Your task to perform on an android device: Go to accessibility settings Image 0: 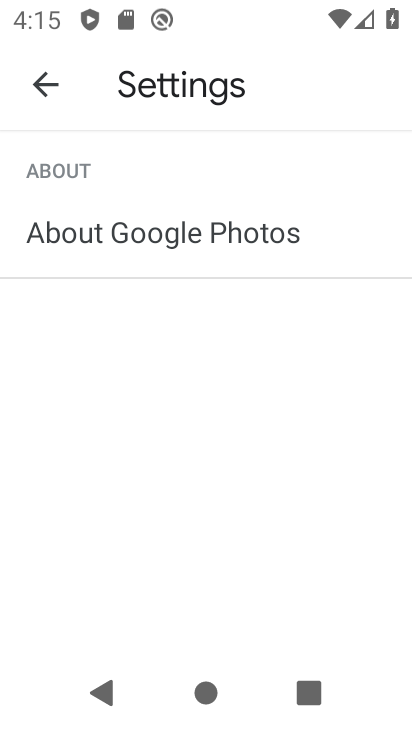
Step 0: press home button
Your task to perform on an android device: Go to accessibility settings Image 1: 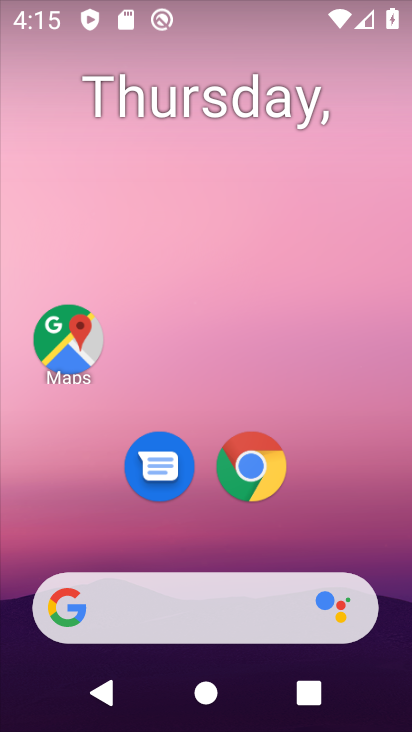
Step 1: drag from (197, 283) to (196, 81)
Your task to perform on an android device: Go to accessibility settings Image 2: 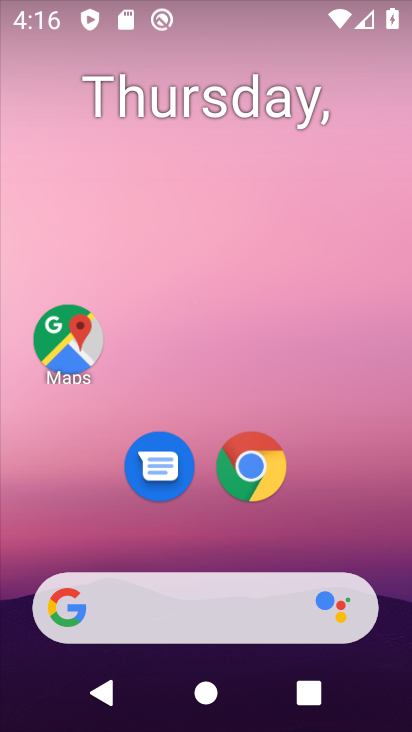
Step 2: drag from (197, 540) to (224, 41)
Your task to perform on an android device: Go to accessibility settings Image 3: 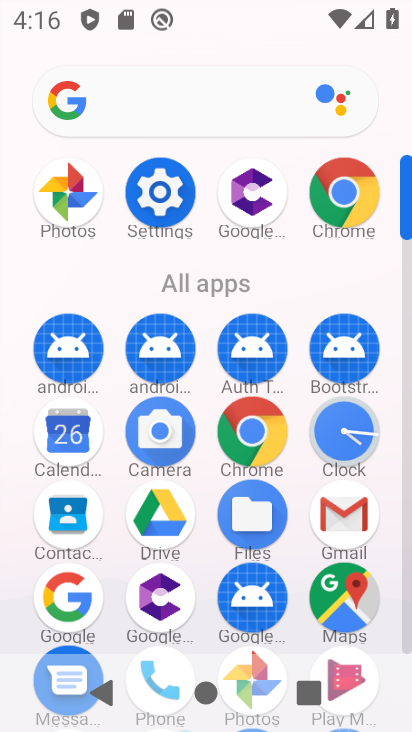
Step 3: click (158, 180)
Your task to perform on an android device: Go to accessibility settings Image 4: 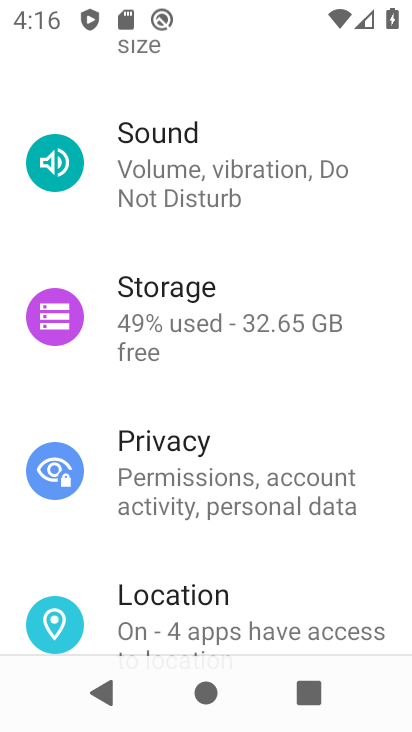
Step 4: drag from (243, 582) to (239, 36)
Your task to perform on an android device: Go to accessibility settings Image 5: 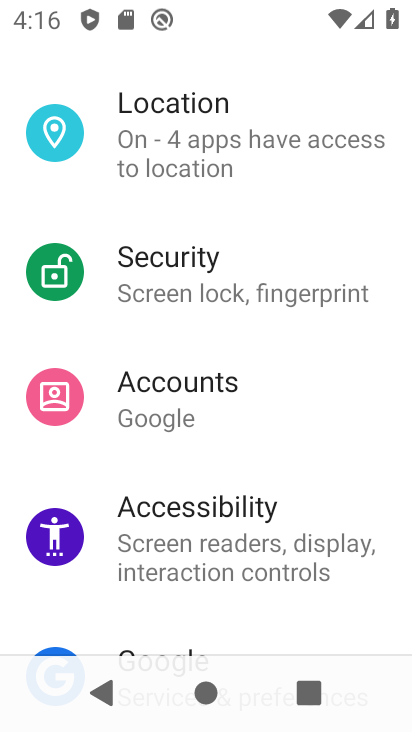
Step 5: click (234, 520)
Your task to perform on an android device: Go to accessibility settings Image 6: 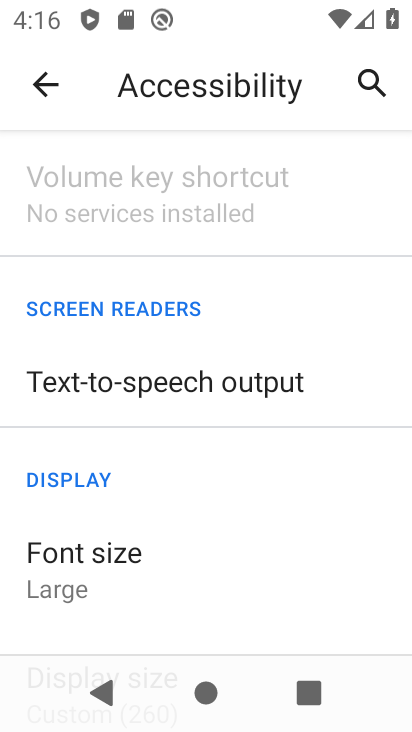
Step 6: task complete